Your task to perform on an android device: turn off picture-in-picture Image 0: 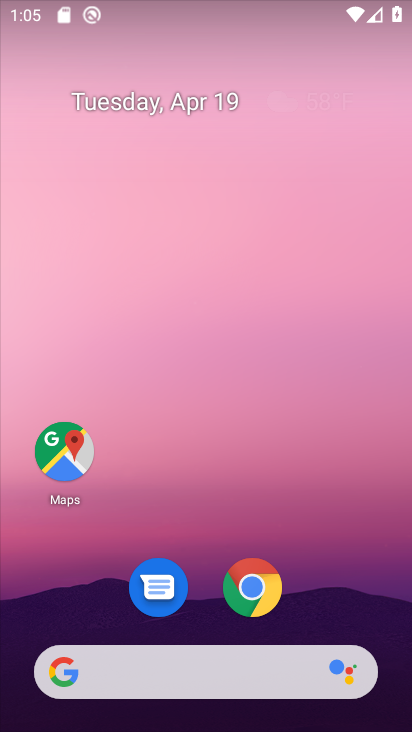
Step 0: drag from (309, 498) to (288, 236)
Your task to perform on an android device: turn off picture-in-picture Image 1: 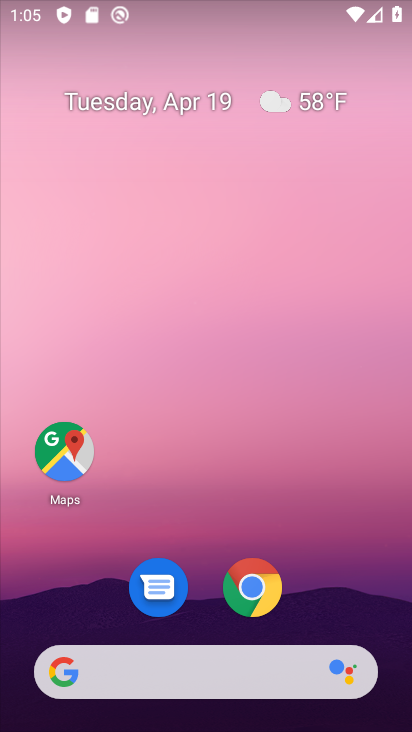
Step 1: drag from (311, 450) to (230, 28)
Your task to perform on an android device: turn off picture-in-picture Image 2: 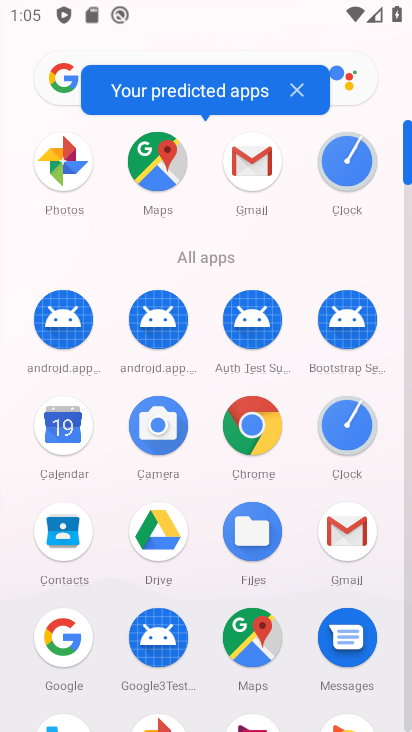
Step 2: drag from (263, 564) to (211, 156)
Your task to perform on an android device: turn off picture-in-picture Image 3: 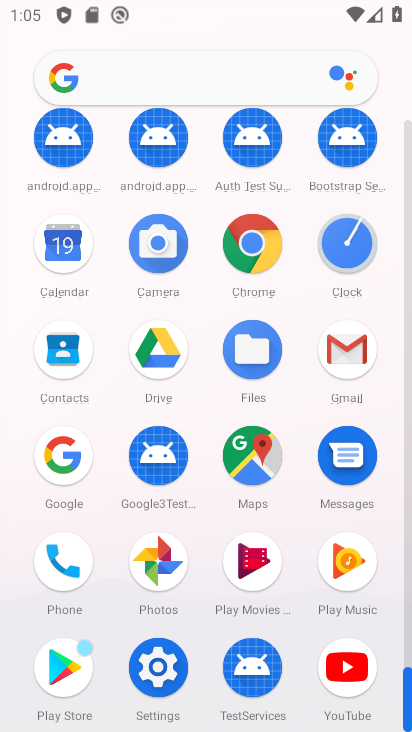
Step 3: click (163, 664)
Your task to perform on an android device: turn off picture-in-picture Image 4: 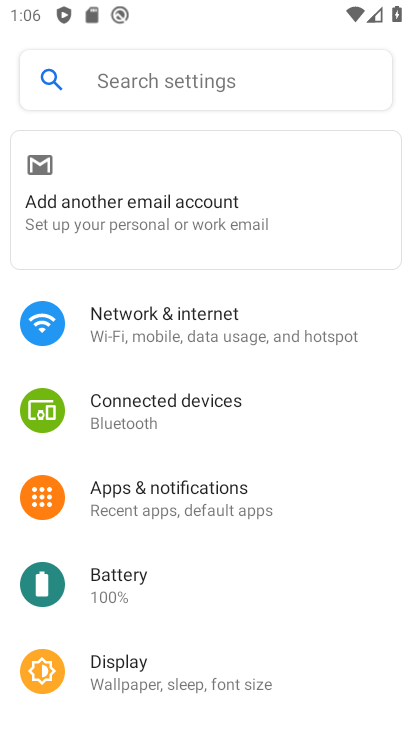
Step 4: click (208, 497)
Your task to perform on an android device: turn off picture-in-picture Image 5: 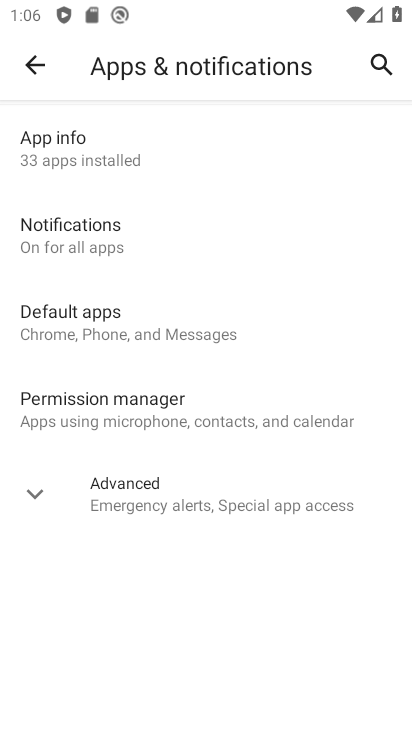
Step 5: click (154, 506)
Your task to perform on an android device: turn off picture-in-picture Image 6: 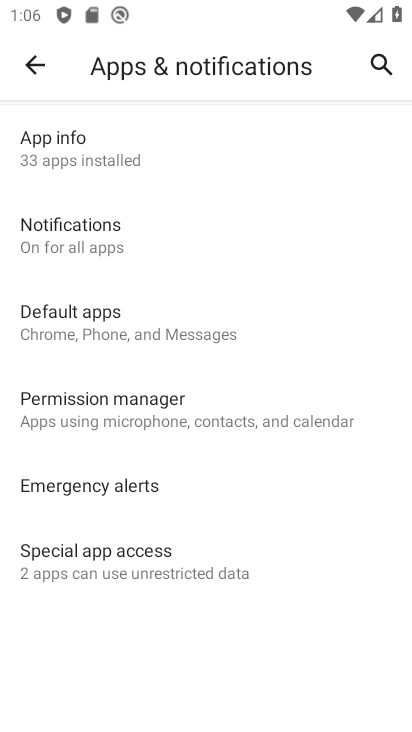
Step 6: click (130, 564)
Your task to perform on an android device: turn off picture-in-picture Image 7: 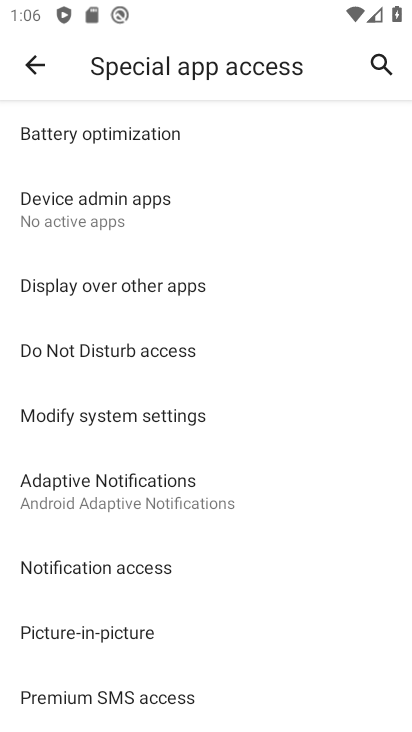
Step 7: click (93, 620)
Your task to perform on an android device: turn off picture-in-picture Image 8: 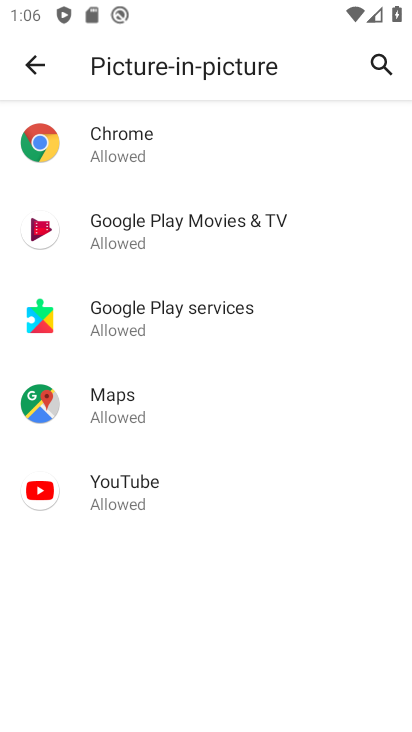
Step 8: click (167, 139)
Your task to perform on an android device: turn off picture-in-picture Image 9: 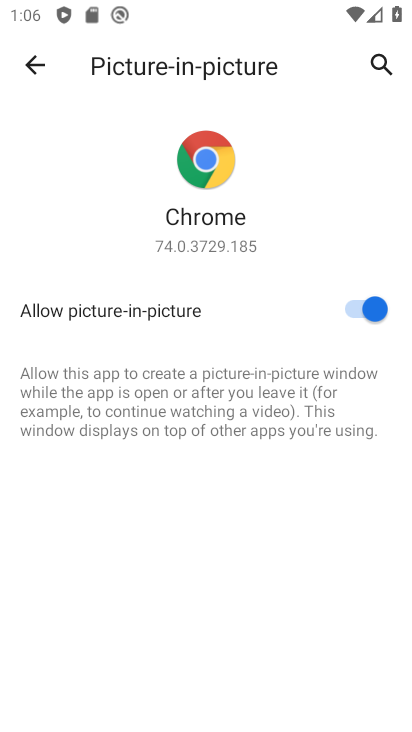
Step 9: click (368, 303)
Your task to perform on an android device: turn off picture-in-picture Image 10: 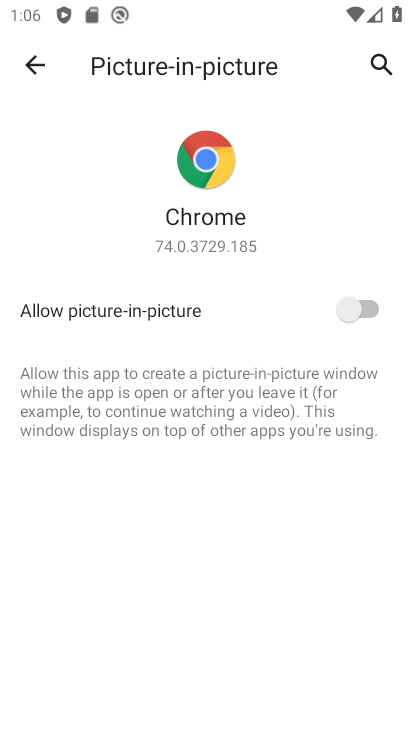
Step 10: task complete